Your task to perform on an android device: allow notifications from all sites in the chrome app Image 0: 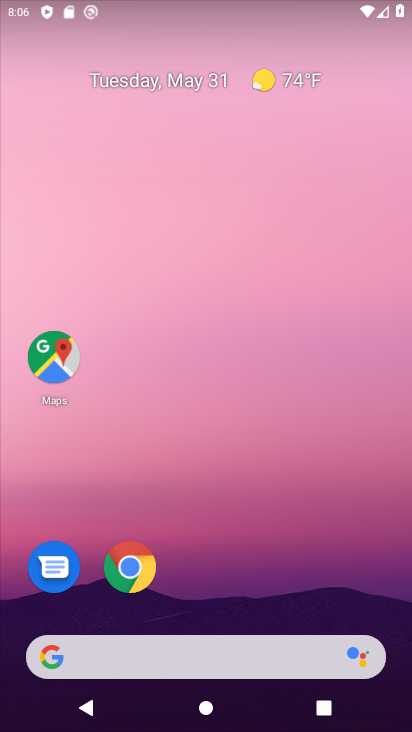
Step 0: drag from (254, 605) to (140, 6)
Your task to perform on an android device: allow notifications from all sites in the chrome app Image 1: 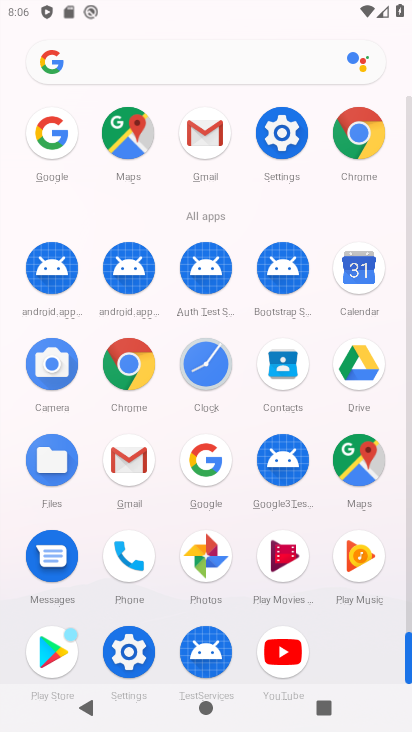
Step 1: click (366, 137)
Your task to perform on an android device: allow notifications from all sites in the chrome app Image 2: 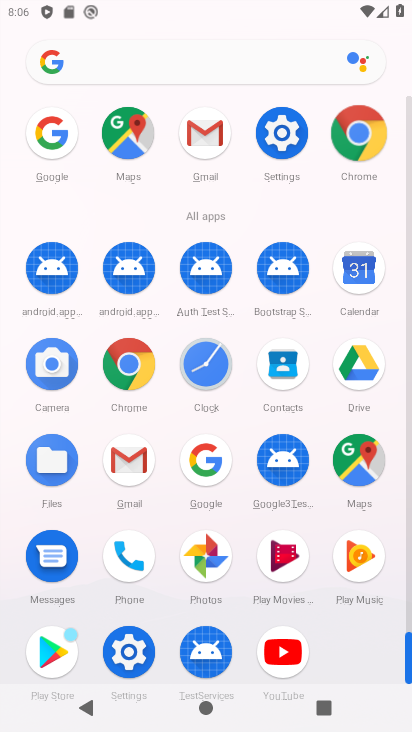
Step 2: click (366, 137)
Your task to perform on an android device: allow notifications from all sites in the chrome app Image 3: 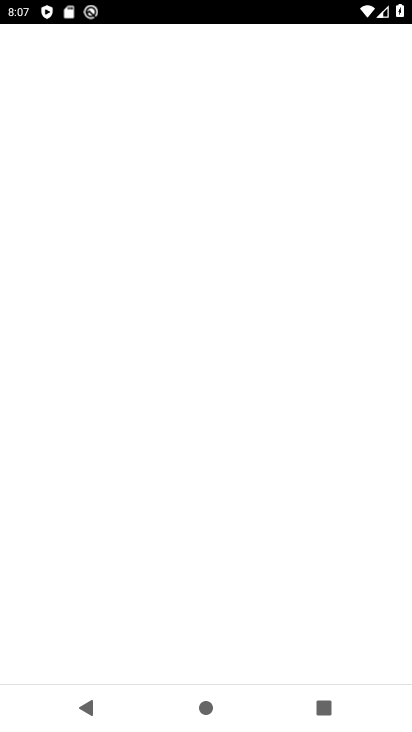
Step 3: click (366, 137)
Your task to perform on an android device: allow notifications from all sites in the chrome app Image 4: 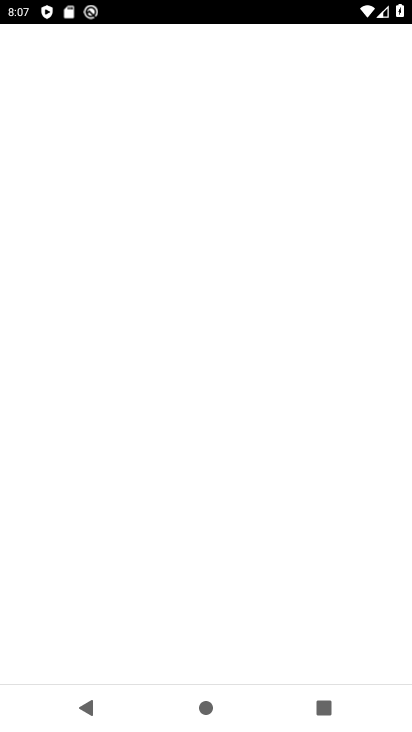
Step 4: click (366, 137)
Your task to perform on an android device: allow notifications from all sites in the chrome app Image 5: 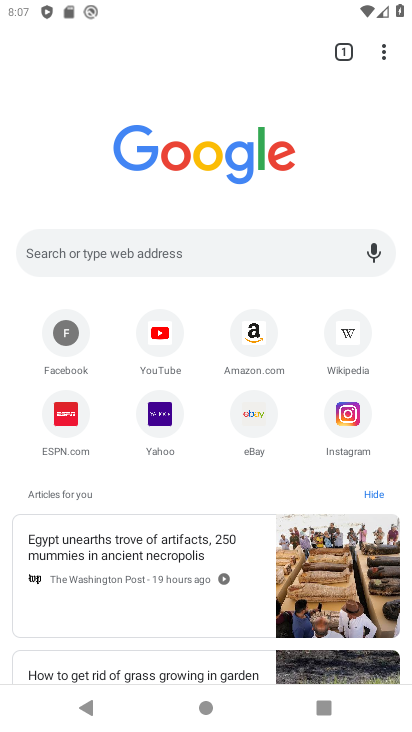
Step 5: drag from (384, 54) to (207, 431)
Your task to perform on an android device: allow notifications from all sites in the chrome app Image 6: 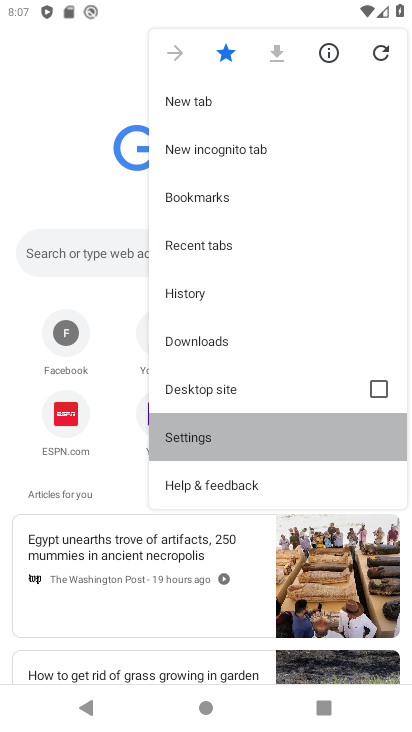
Step 6: click (211, 431)
Your task to perform on an android device: allow notifications from all sites in the chrome app Image 7: 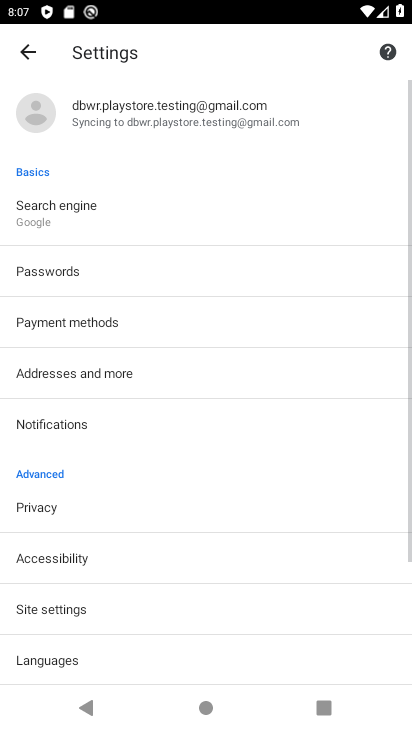
Step 7: drag from (97, 498) to (98, 65)
Your task to perform on an android device: allow notifications from all sites in the chrome app Image 8: 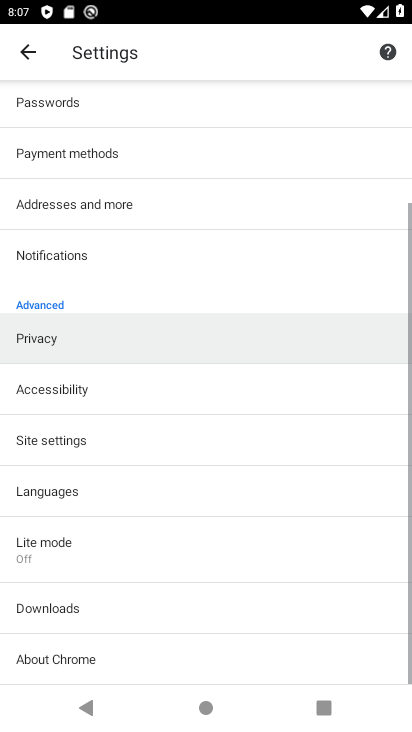
Step 8: drag from (157, 501) to (157, 52)
Your task to perform on an android device: allow notifications from all sites in the chrome app Image 9: 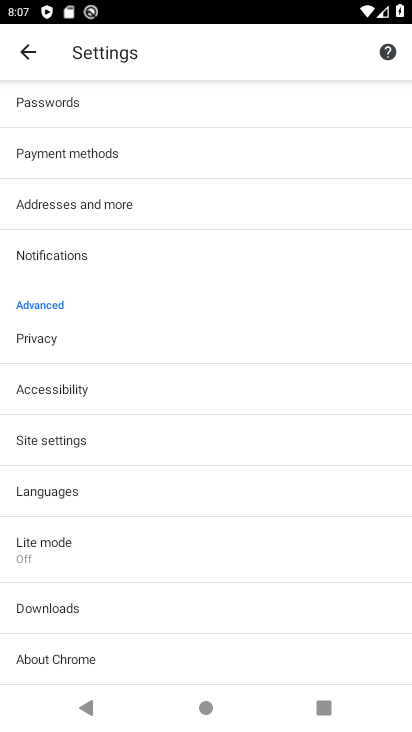
Step 9: click (41, 436)
Your task to perform on an android device: allow notifications from all sites in the chrome app Image 10: 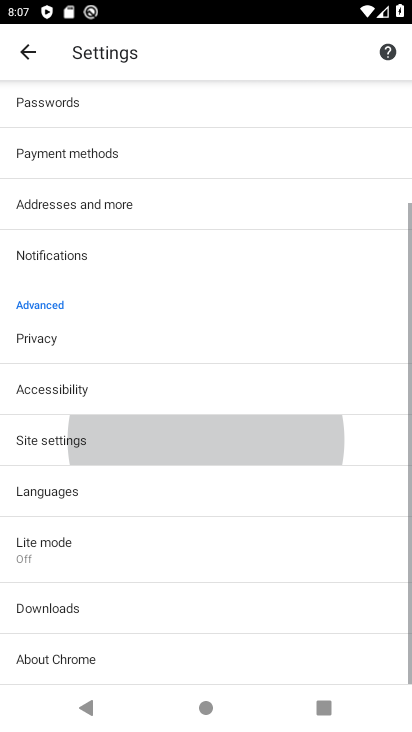
Step 10: click (41, 436)
Your task to perform on an android device: allow notifications from all sites in the chrome app Image 11: 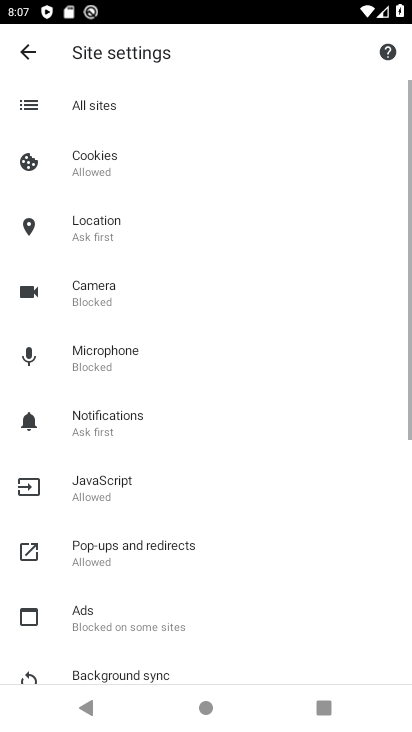
Step 11: click (92, 100)
Your task to perform on an android device: allow notifications from all sites in the chrome app Image 12: 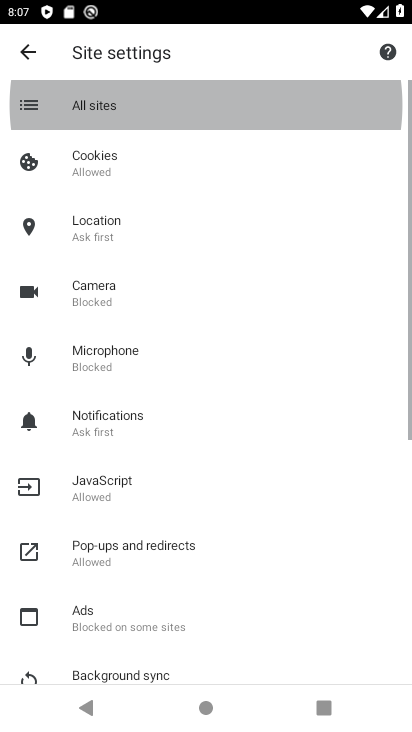
Step 12: click (91, 100)
Your task to perform on an android device: allow notifications from all sites in the chrome app Image 13: 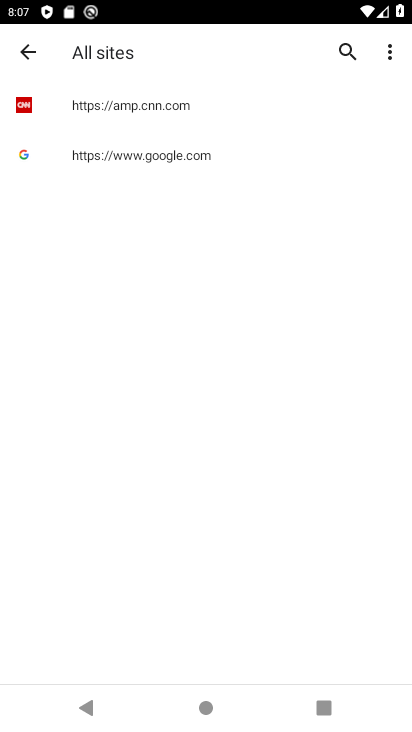
Step 13: click (110, 101)
Your task to perform on an android device: allow notifications from all sites in the chrome app Image 14: 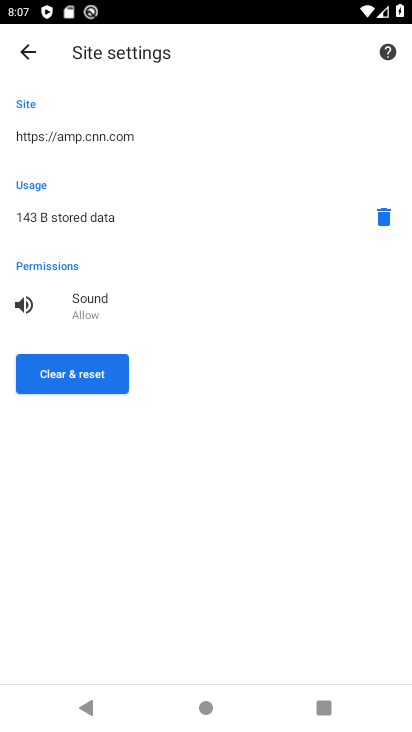
Step 14: click (23, 44)
Your task to perform on an android device: allow notifications from all sites in the chrome app Image 15: 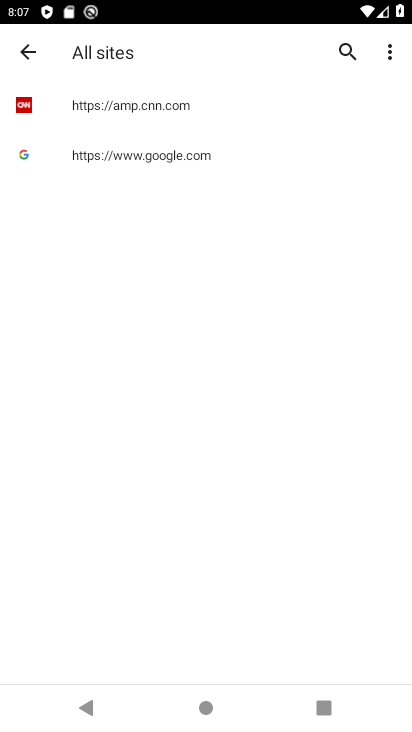
Step 15: task complete